Your task to perform on an android device: Open location settings Image 0: 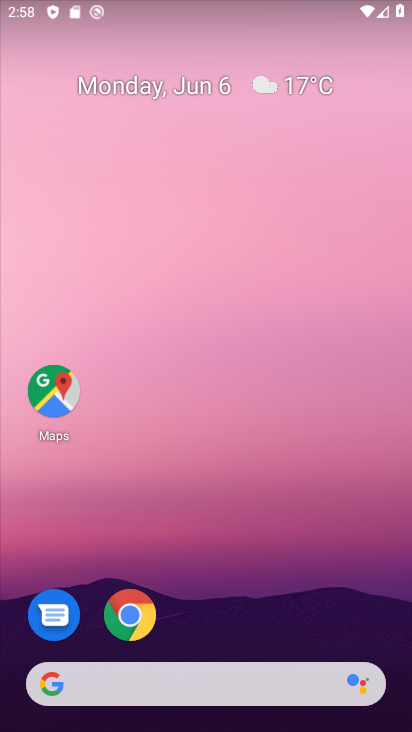
Step 0: drag from (232, 632) to (268, 358)
Your task to perform on an android device: Open location settings Image 1: 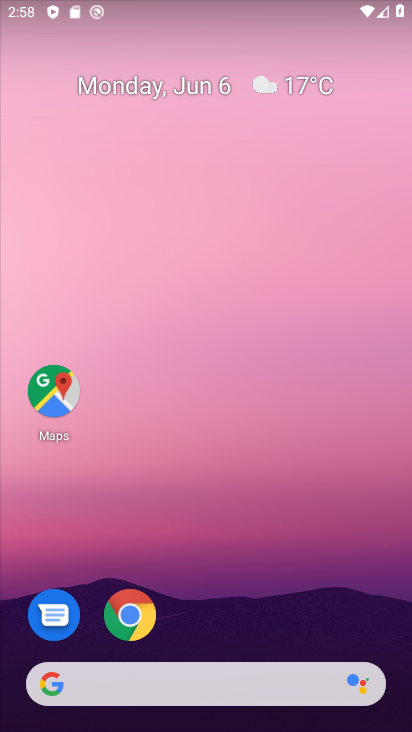
Step 1: drag from (242, 630) to (321, 115)
Your task to perform on an android device: Open location settings Image 2: 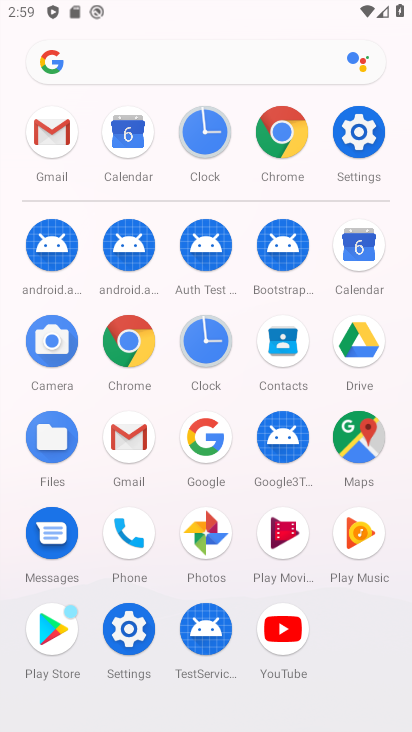
Step 2: click (359, 152)
Your task to perform on an android device: Open location settings Image 3: 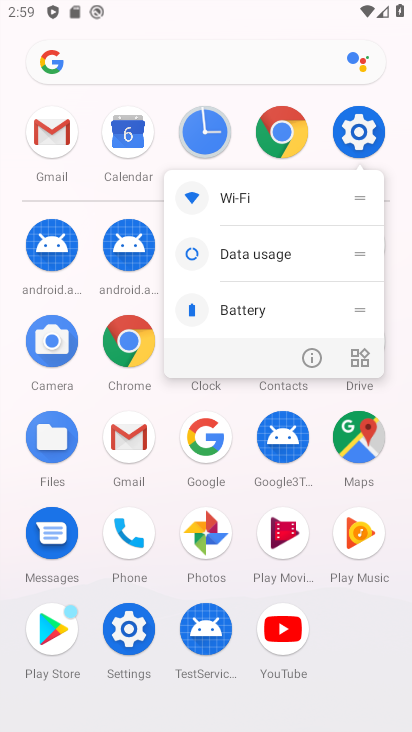
Step 3: click (358, 136)
Your task to perform on an android device: Open location settings Image 4: 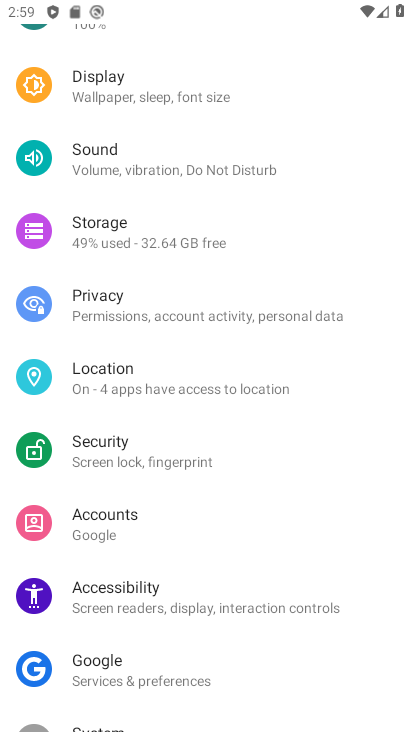
Step 4: click (133, 385)
Your task to perform on an android device: Open location settings Image 5: 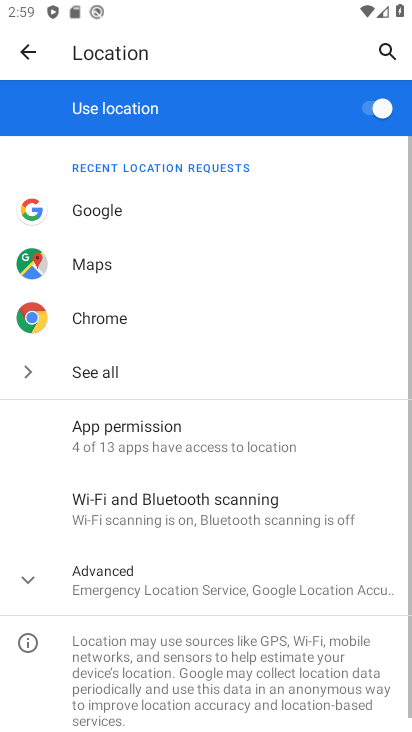
Step 5: task complete